Your task to perform on an android device: change the clock style Image 0: 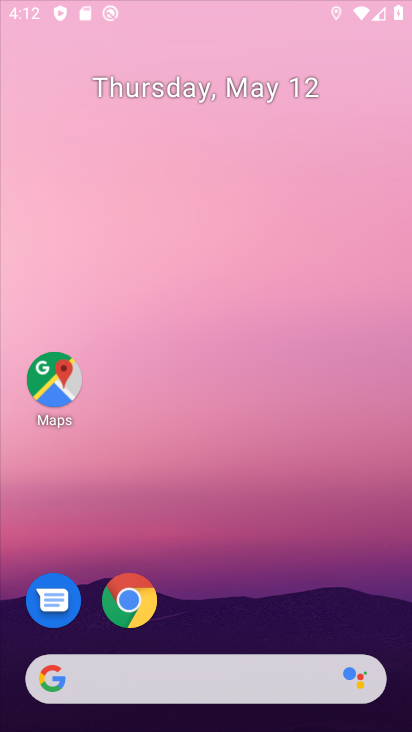
Step 0: click (246, 207)
Your task to perform on an android device: change the clock style Image 1: 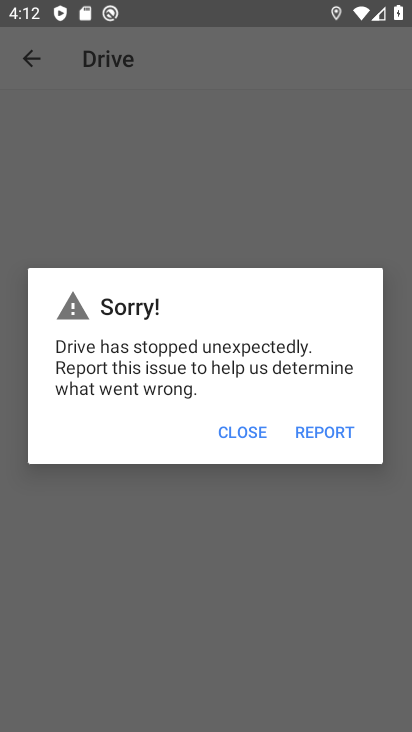
Step 1: press home button
Your task to perform on an android device: change the clock style Image 2: 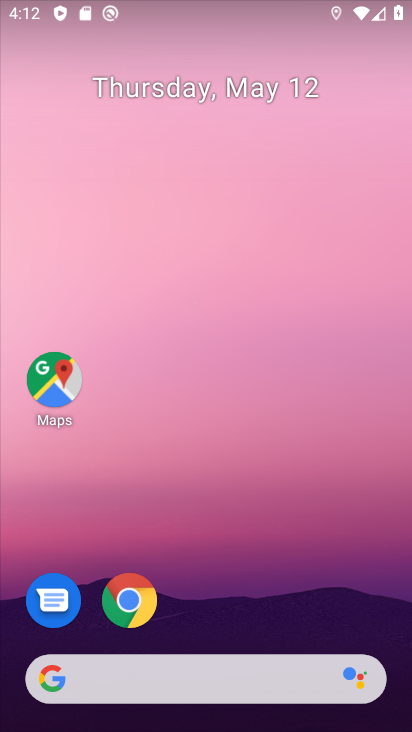
Step 2: drag from (181, 581) to (203, 236)
Your task to perform on an android device: change the clock style Image 3: 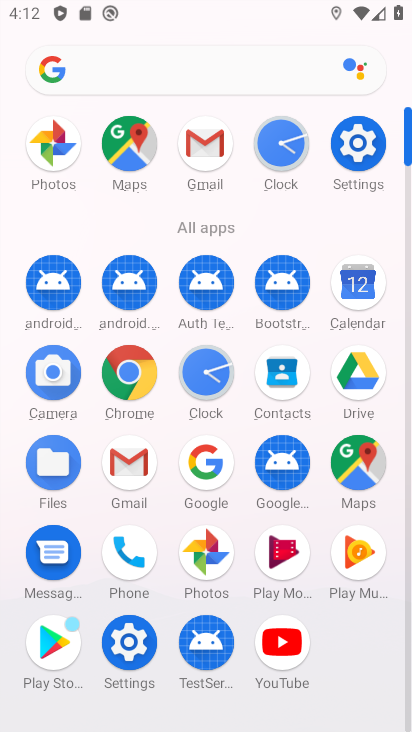
Step 3: click (208, 366)
Your task to perform on an android device: change the clock style Image 4: 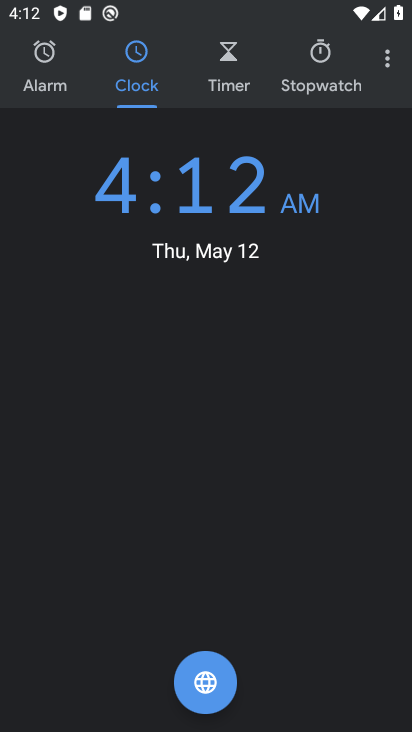
Step 4: click (383, 64)
Your task to perform on an android device: change the clock style Image 5: 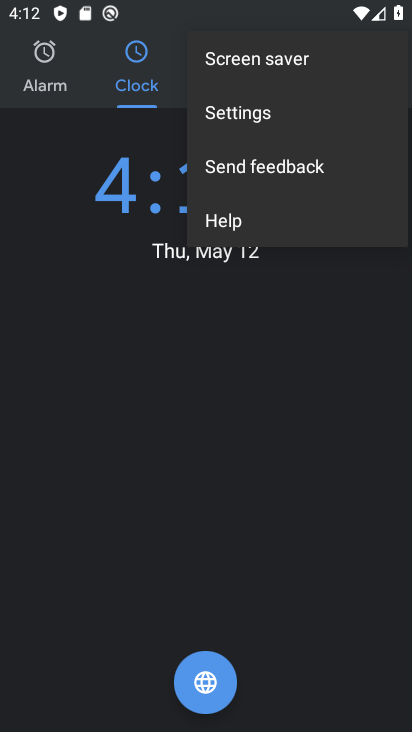
Step 5: click (252, 119)
Your task to perform on an android device: change the clock style Image 6: 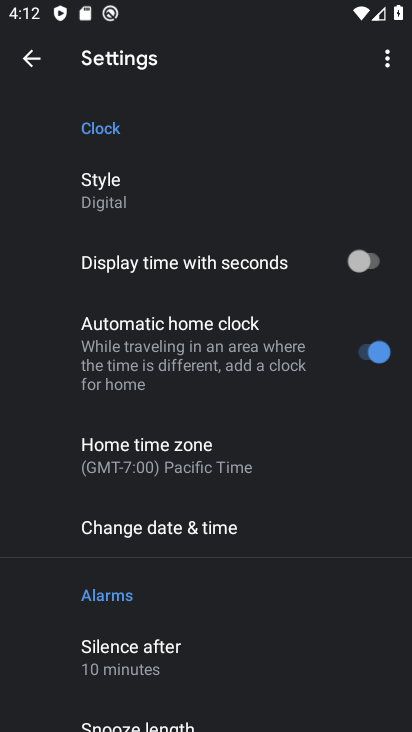
Step 6: click (307, 216)
Your task to perform on an android device: change the clock style Image 7: 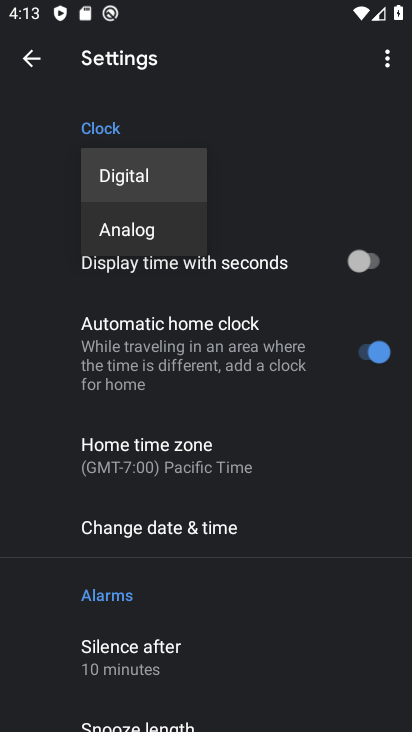
Step 7: drag from (217, 621) to (257, 299)
Your task to perform on an android device: change the clock style Image 8: 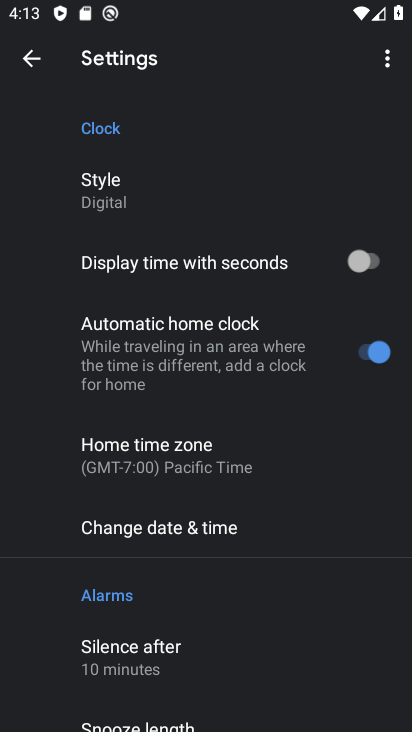
Step 8: drag from (225, 649) to (245, 320)
Your task to perform on an android device: change the clock style Image 9: 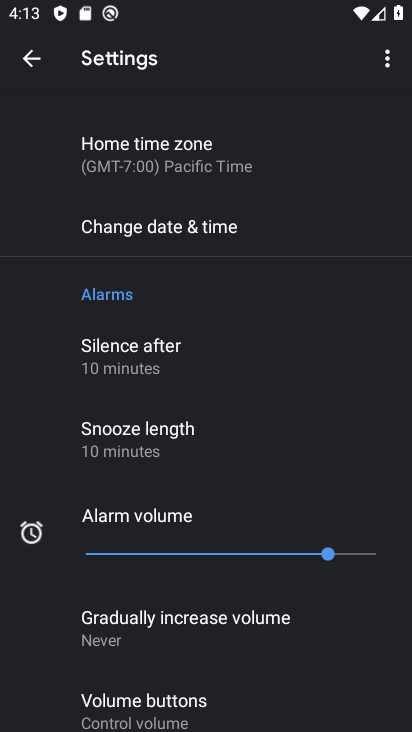
Step 9: drag from (189, 222) to (310, 730)
Your task to perform on an android device: change the clock style Image 10: 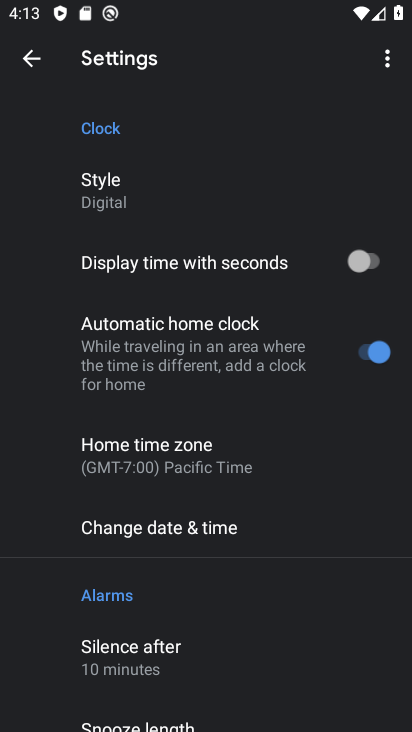
Step 10: click (123, 167)
Your task to perform on an android device: change the clock style Image 11: 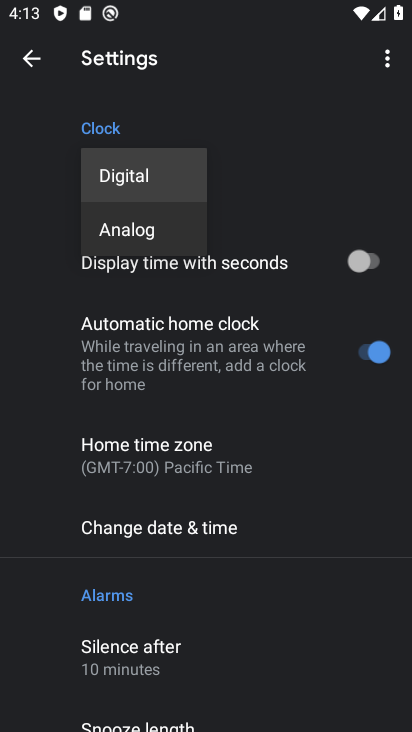
Step 11: click (156, 223)
Your task to perform on an android device: change the clock style Image 12: 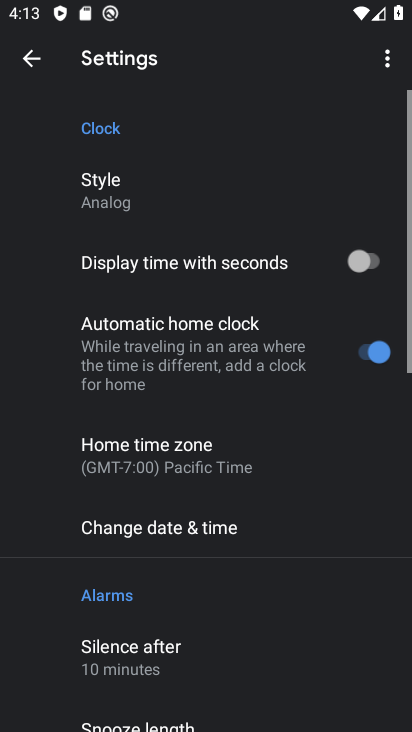
Step 12: task complete